Your task to perform on an android device: Go to eBay Image 0: 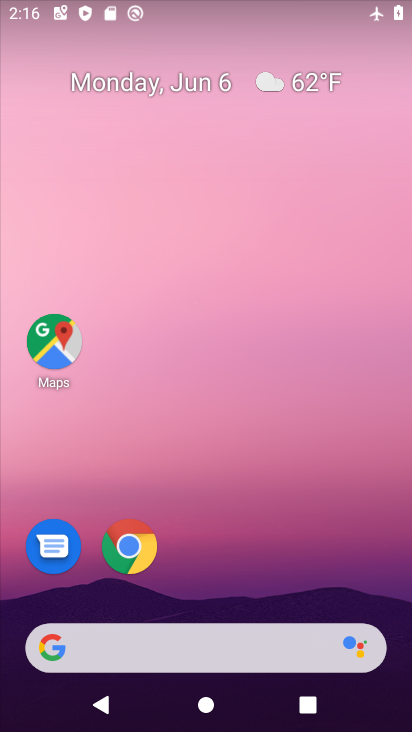
Step 0: click (129, 545)
Your task to perform on an android device: Go to eBay Image 1: 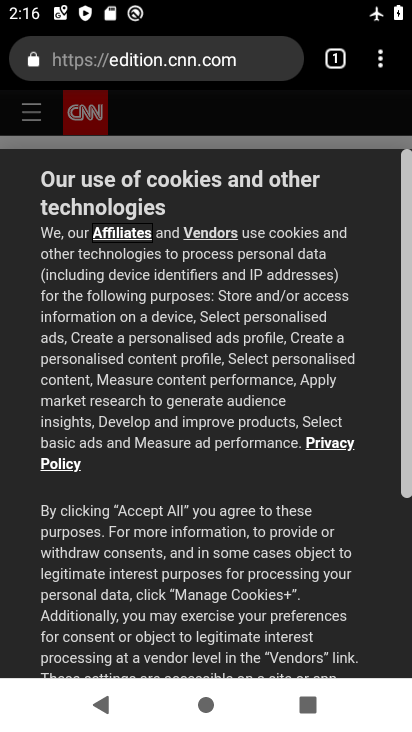
Step 1: click (166, 56)
Your task to perform on an android device: Go to eBay Image 2: 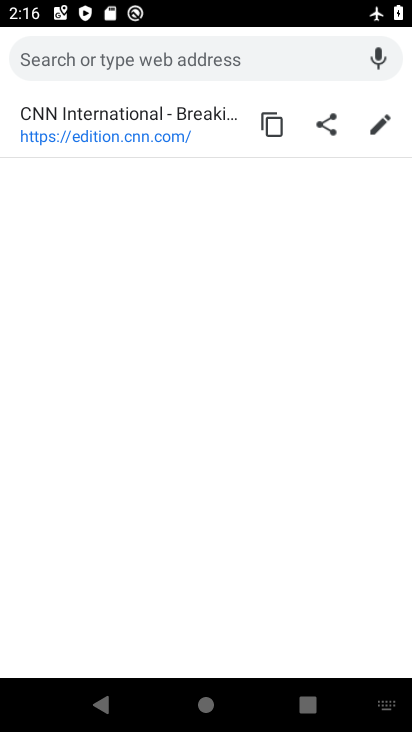
Step 2: type "ebay"
Your task to perform on an android device: Go to eBay Image 3: 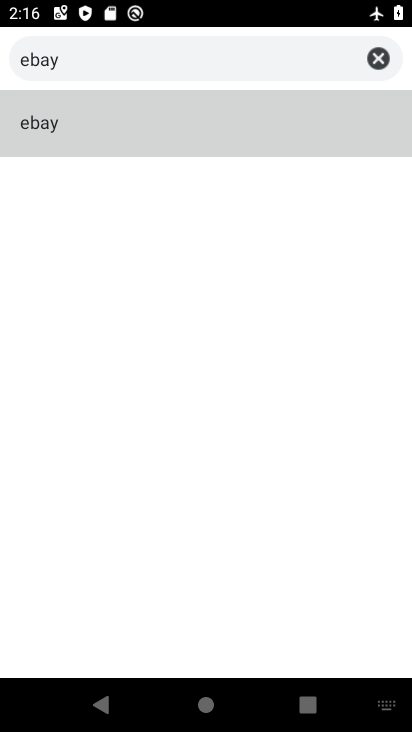
Step 3: click (43, 123)
Your task to perform on an android device: Go to eBay Image 4: 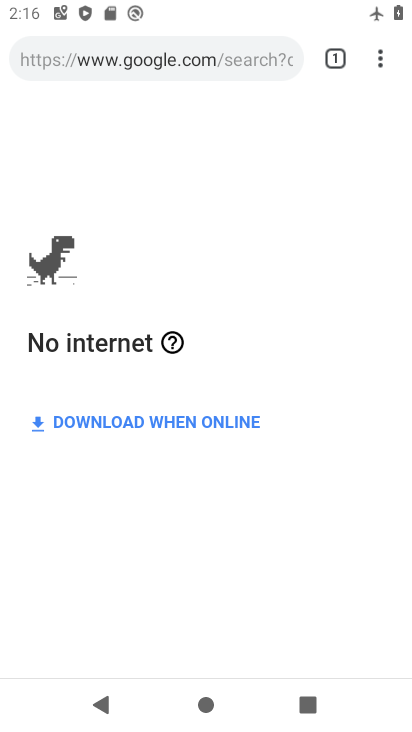
Step 4: task complete